Your task to perform on an android device: Open the phone app and click the voicemail tab. Image 0: 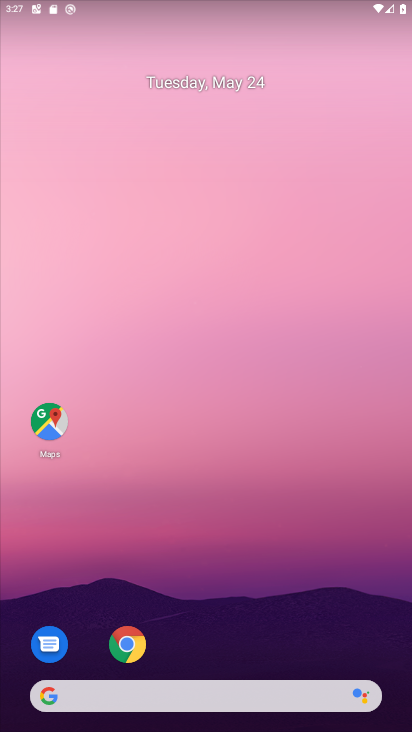
Step 0: drag from (315, 637) to (283, 344)
Your task to perform on an android device: Open the phone app and click the voicemail tab. Image 1: 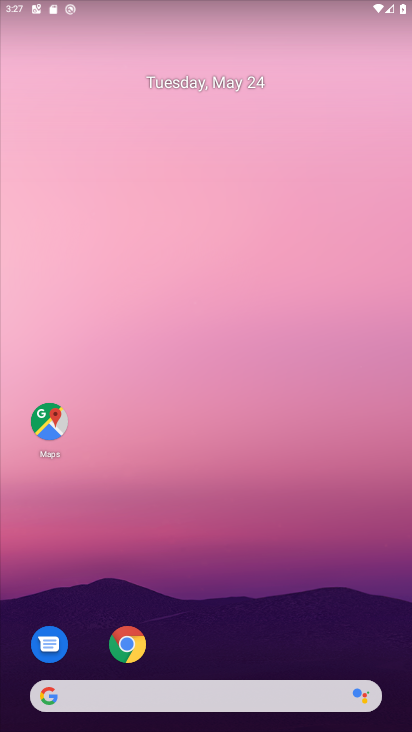
Step 1: drag from (314, 598) to (224, 1)
Your task to perform on an android device: Open the phone app and click the voicemail tab. Image 2: 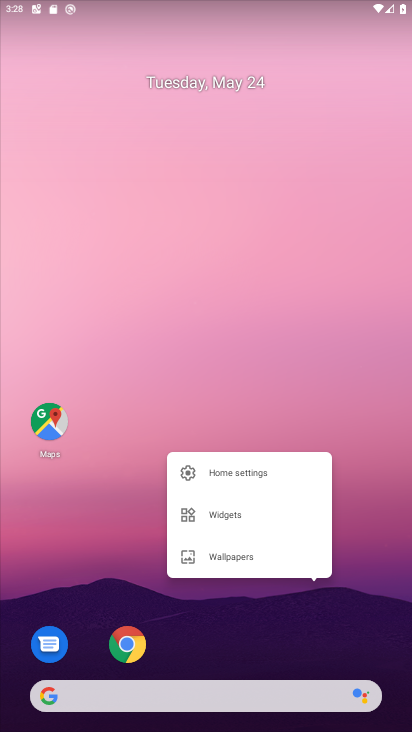
Step 2: click (239, 315)
Your task to perform on an android device: Open the phone app and click the voicemail tab. Image 3: 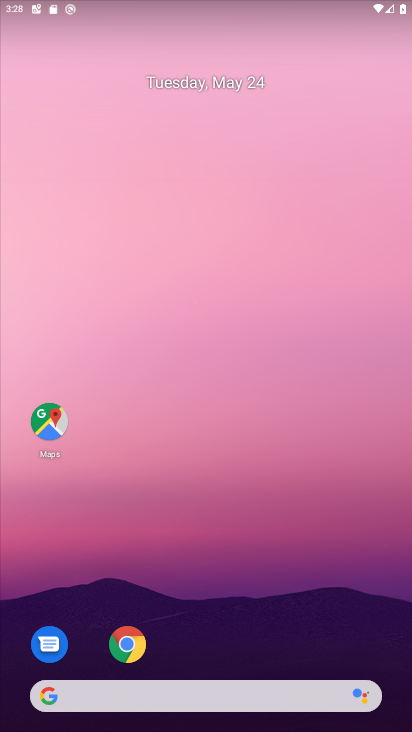
Step 3: drag from (281, 606) to (181, 101)
Your task to perform on an android device: Open the phone app and click the voicemail tab. Image 4: 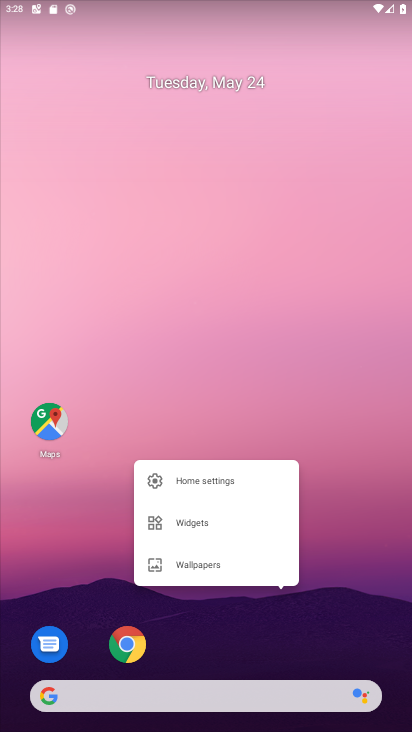
Step 4: click (262, 407)
Your task to perform on an android device: Open the phone app and click the voicemail tab. Image 5: 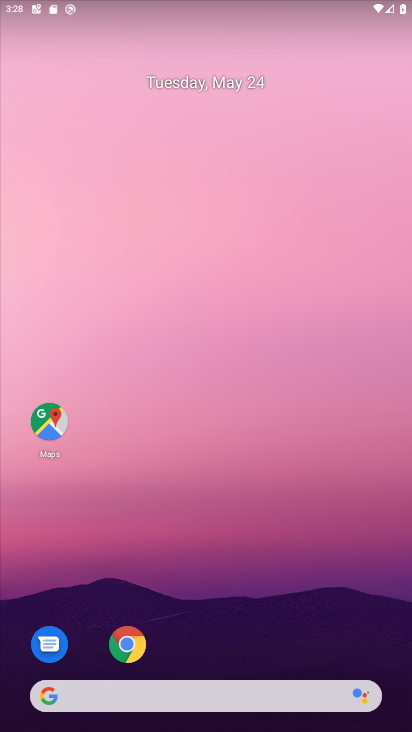
Step 5: drag from (226, 461) to (163, 184)
Your task to perform on an android device: Open the phone app and click the voicemail tab. Image 6: 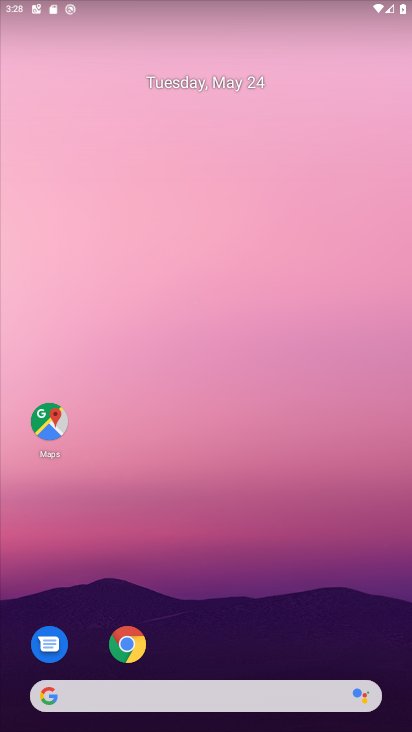
Step 6: drag from (252, 611) to (187, 100)
Your task to perform on an android device: Open the phone app and click the voicemail tab. Image 7: 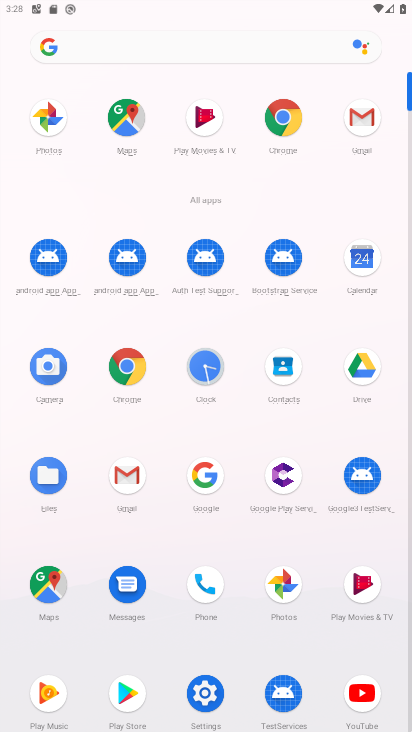
Step 7: click (208, 603)
Your task to perform on an android device: Open the phone app and click the voicemail tab. Image 8: 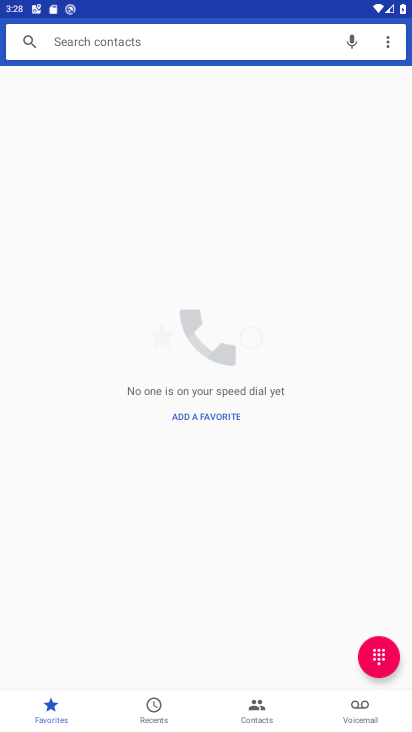
Step 8: click (358, 706)
Your task to perform on an android device: Open the phone app and click the voicemail tab. Image 9: 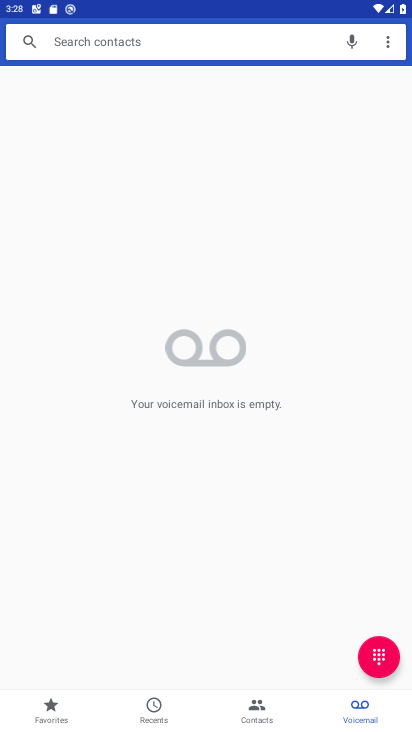
Step 9: task complete